Your task to perform on an android device: open app "Microsoft Authenticator" Image 0: 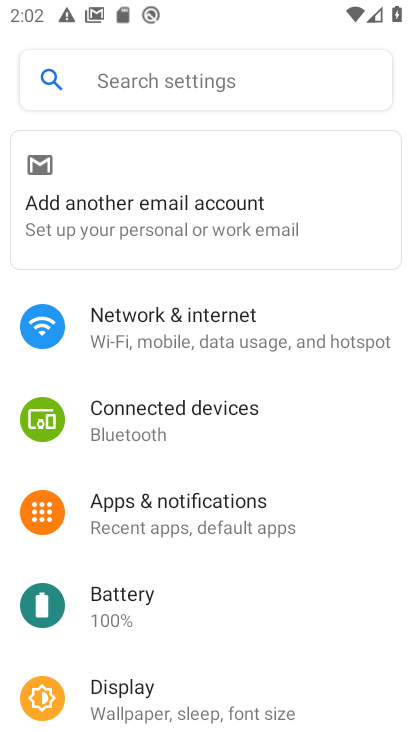
Step 0: press home button
Your task to perform on an android device: open app "Microsoft Authenticator" Image 1: 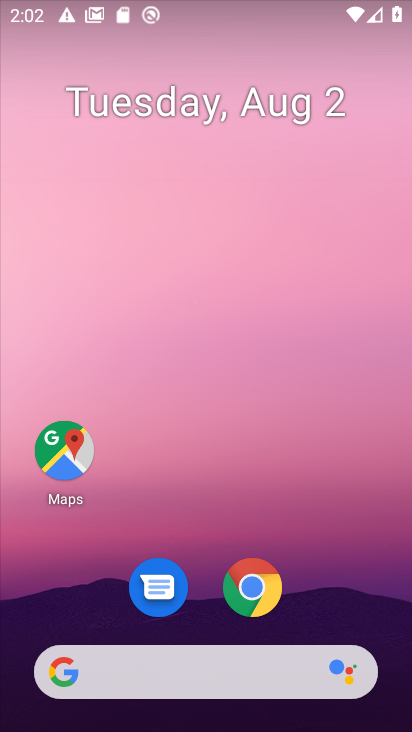
Step 1: drag from (202, 540) to (216, 177)
Your task to perform on an android device: open app "Microsoft Authenticator" Image 2: 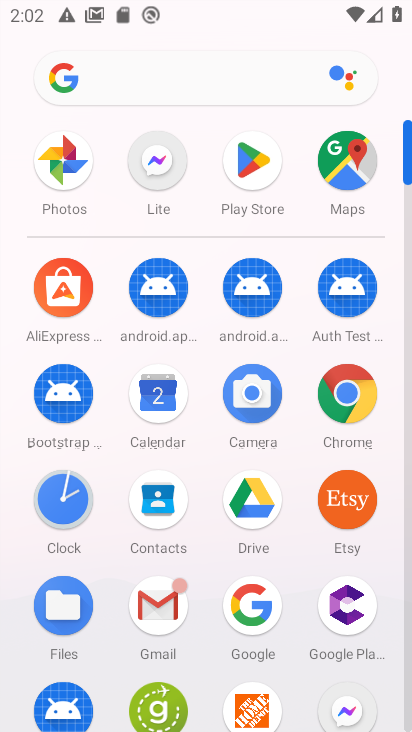
Step 2: click (246, 182)
Your task to perform on an android device: open app "Microsoft Authenticator" Image 3: 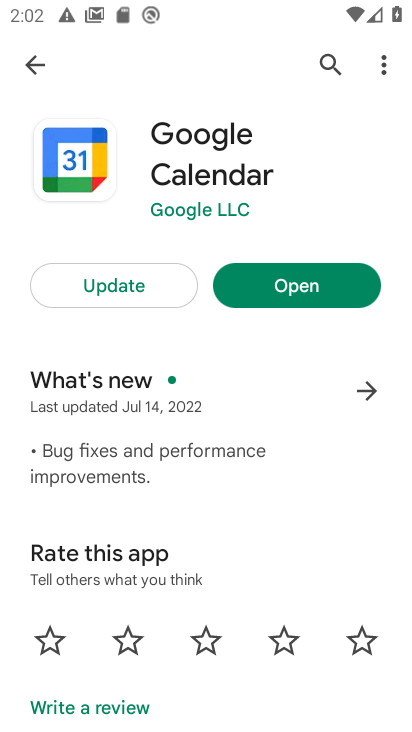
Step 3: click (328, 64)
Your task to perform on an android device: open app "Microsoft Authenticator" Image 4: 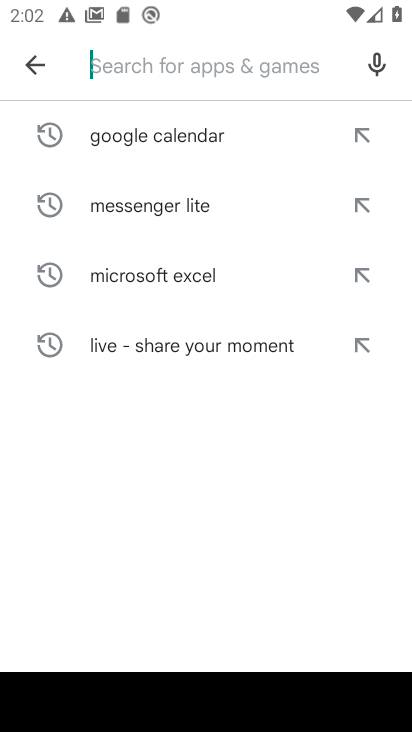
Step 4: type "Microsoft Authenticator"
Your task to perform on an android device: open app "Microsoft Authenticator" Image 5: 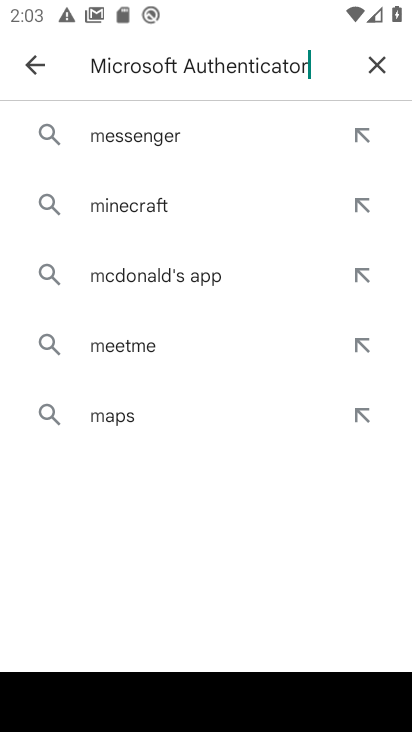
Step 5: type ""
Your task to perform on an android device: open app "Microsoft Authenticator" Image 6: 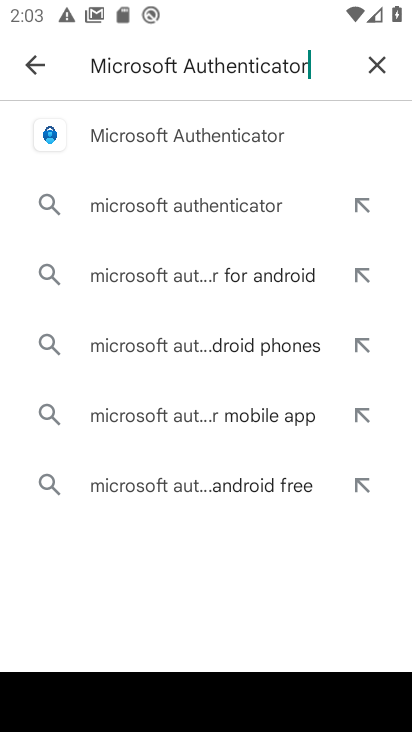
Step 6: click (200, 145)
Your task to perform on an android device: open app "Microsoft Authenticator" Image 7: 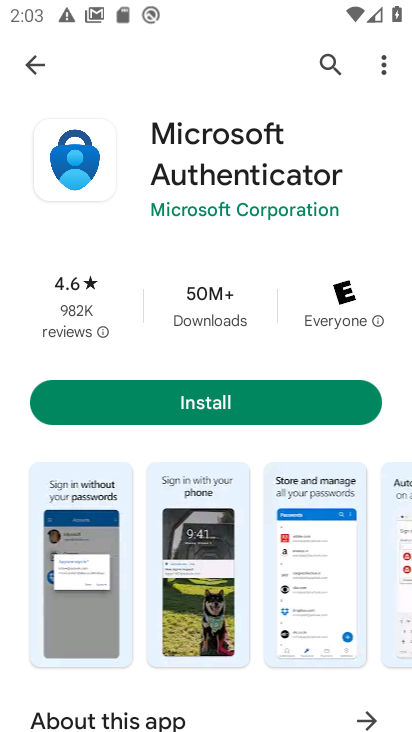
Step 7: task complete